Your task to perform on an android device: open wifi settings Image 0: 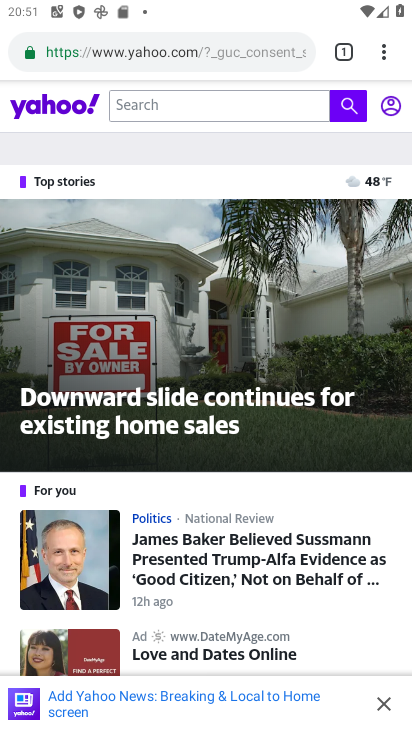
Step 0: press home button
Your task to perform on an android device: open wifi settings Image 1: 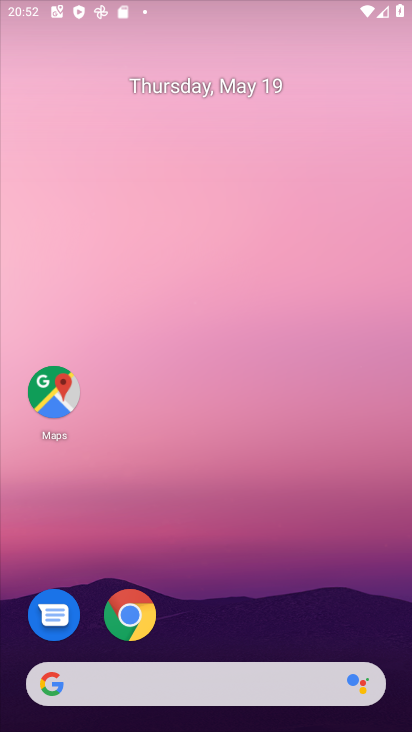
Step 1: drag from (263, 463) to (255, 105)
Your task to perform on an android device: open wifi settings Image 2: 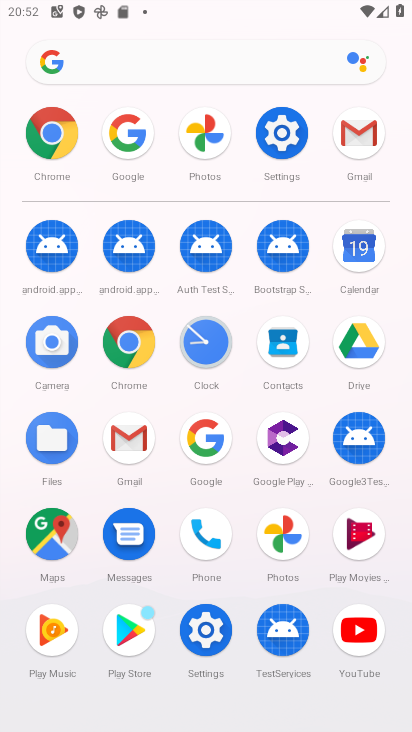
Step 2: click (283, 133)
Your task to perform on an android device: open wifi settings Image 3: 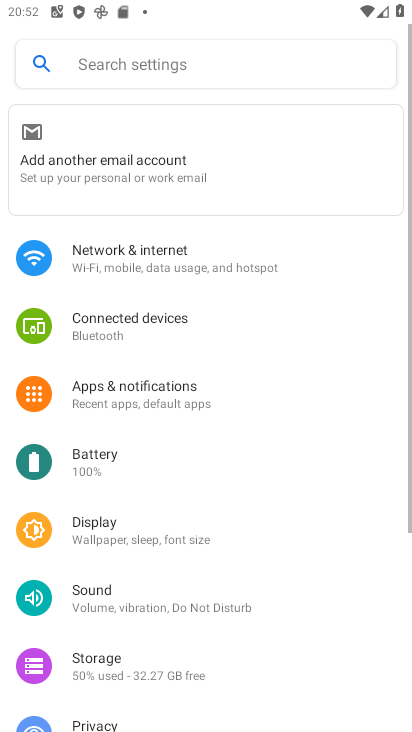
Step 3: click (124, 258)
Your task to perform on an android device: open wifi settings Image 4: 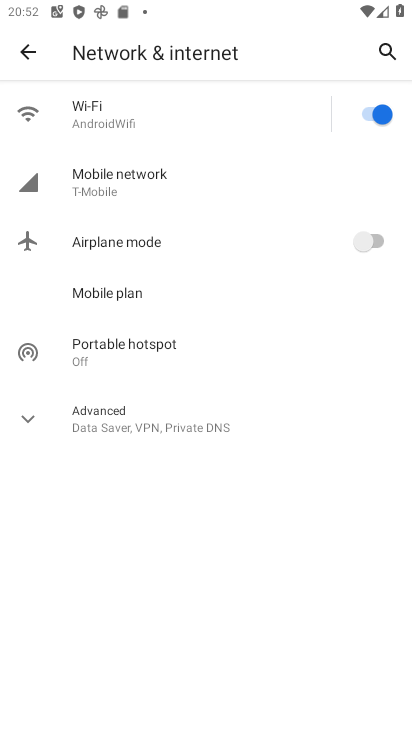
Step 4: click (130, 125)
Your task to perform on an android device: open wifi settings Image 5: 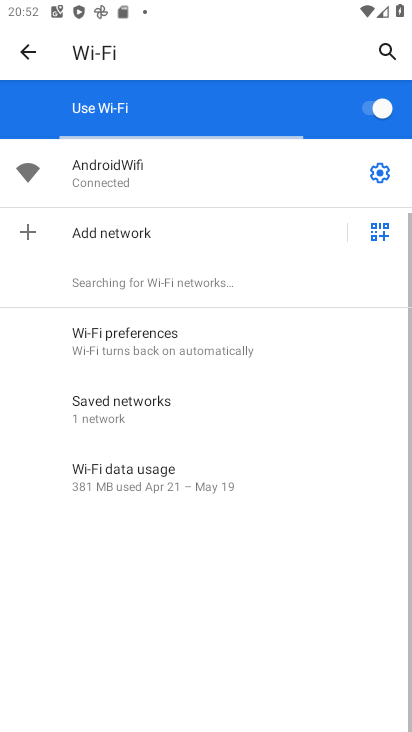
Step 5: click (379, 169)
Your task to perform on an android device: open wifi settings Image 6: 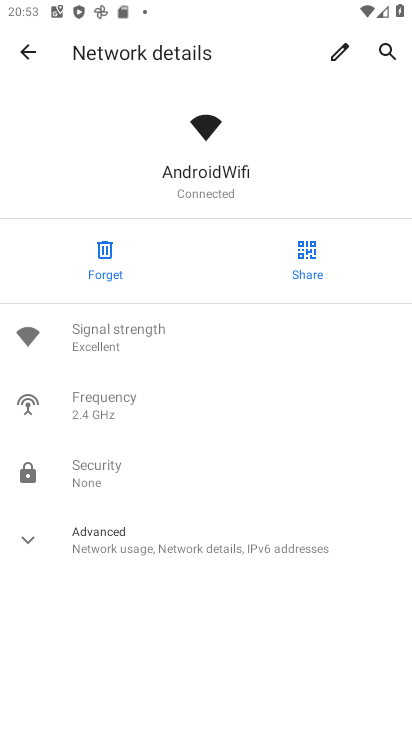
Step 6: task complete